Your task to perform on an android device: check storage Image 0: 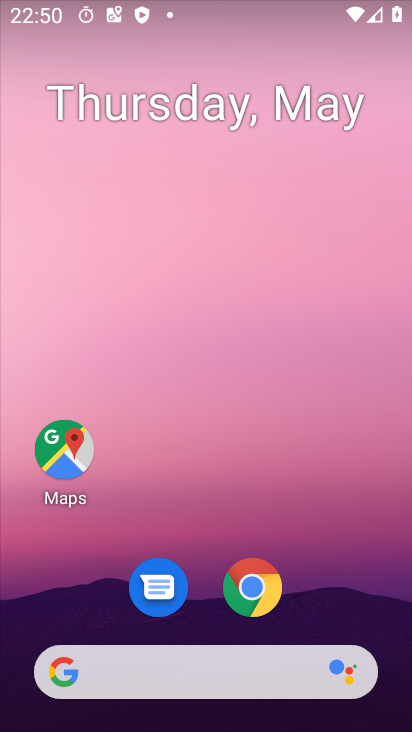
Step 0: drag from (307, 648) to (313, 2)
Your task to perform on an android device: check storage Image 1: 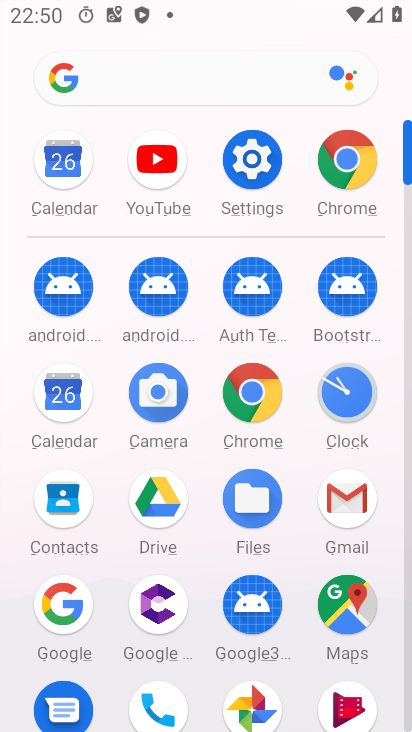
Step 1: click (248, 156)
Your task to perform on an android device: check storage Image 2: 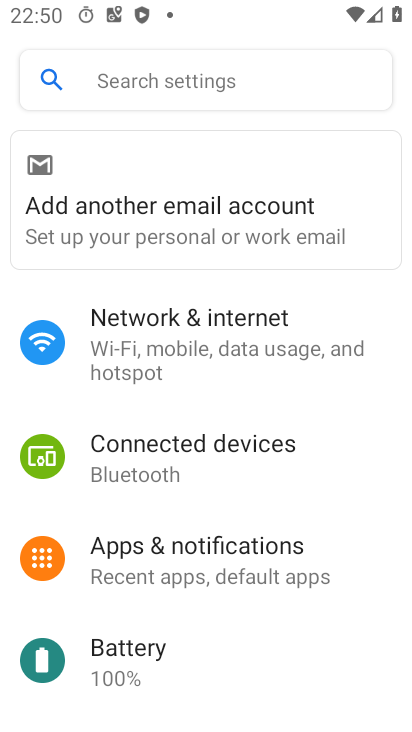
Step 2: drag from (274, 605) to (269, 142)
Your task to perform on an android device: check storage Image 3: 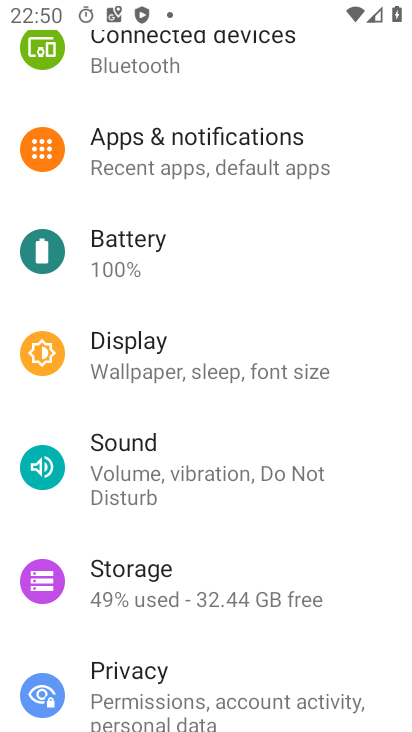
Step 3: click (120, 583)
Your task to perform on an android device: check storage Image 4: 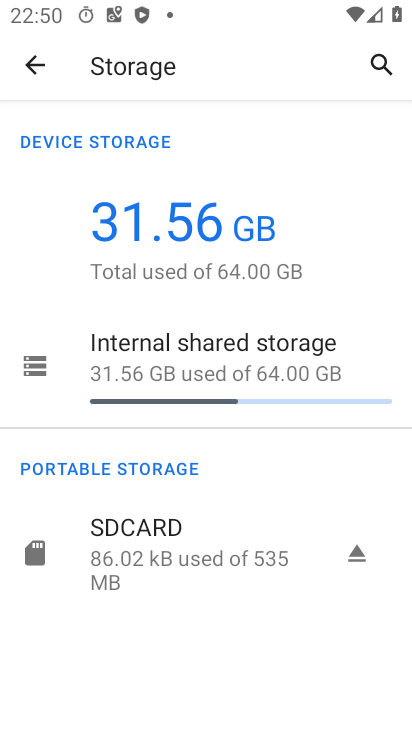
Step 4: click (182, 356)
Your task to perform on an android device: check storage Image 5: 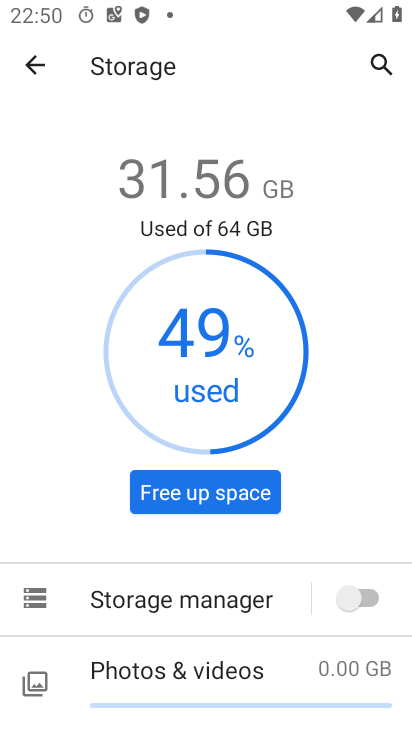
Step 5: task complete